Your task to perform on an android device: check the backup settings in the google photos Image 0: 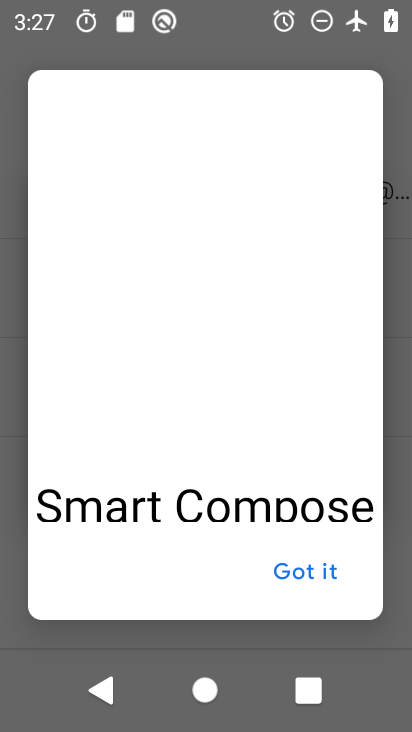
Step 0: press home button
Your task to perform on an android device: check the backup settings in the google photos Image 1: 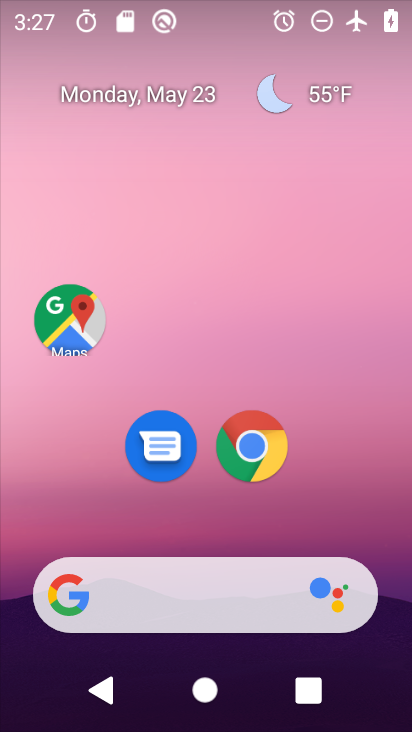
Step 1: drag from (182, 525) to (184, 163)
Your task to perform on an android device: check the backup settings in the google photos Image 2: 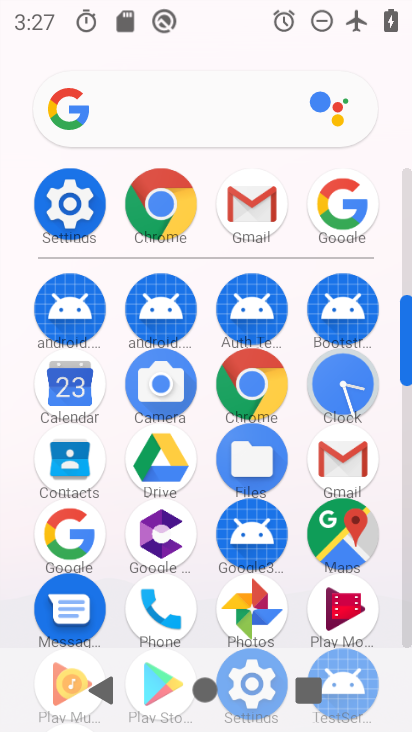
Step 2: click (246, 582)
Your task to perform on an android device: check the backup settings in the google photos Image 3: 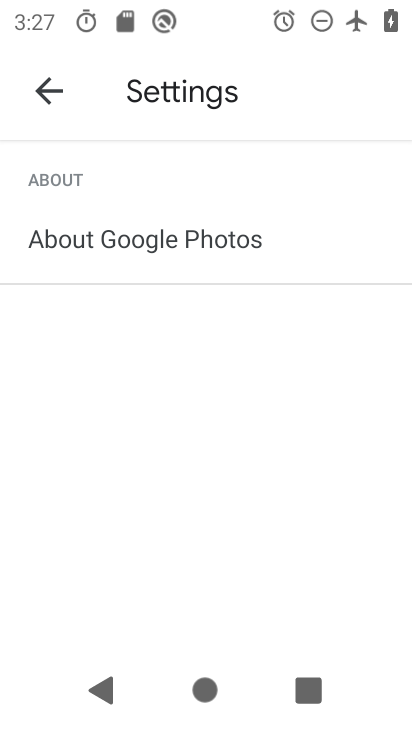
Step 3: click (47, 89)
Your task to perform on an android device: check the backup settings in the google photos Image 4: 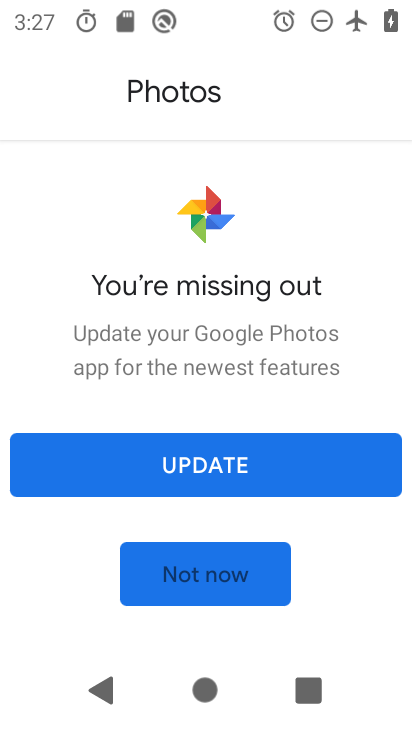
Step 4: click (215, 550)
Your task to perform on an android device: check the backup settings in the google photos Image 5: 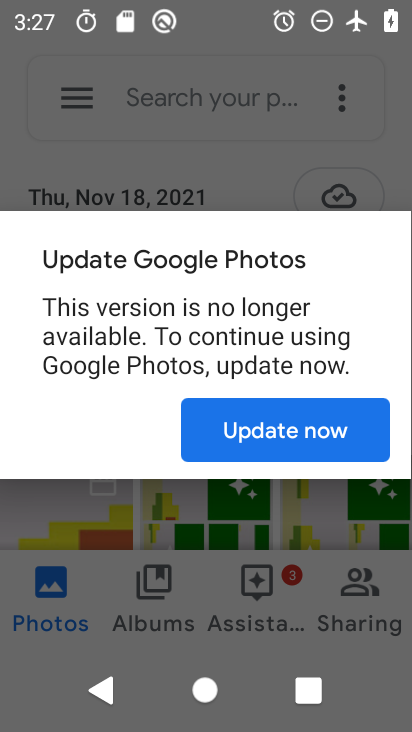
Step 5: click (230, 432)
Your task to perform on an android device: check the backup settings in the google photos Image 6: 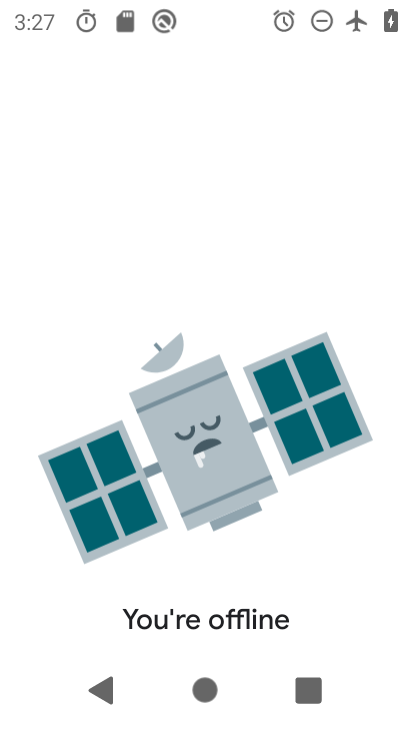
Step 6: task complete